Your task to perform on an android device: Open the Play Movies app and select the watchlist tab. Image 0: 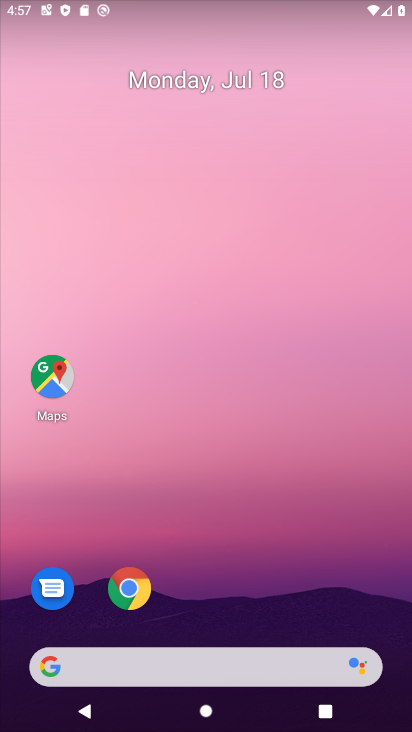
Step 0: drag from (277, 621) to (195, 163)
Your task to perform on an android device: Open the Play Movies app and select the watchlist tab. Image 1: 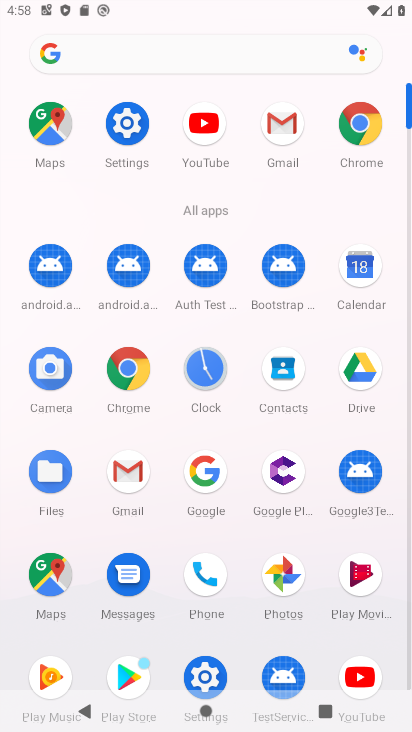
Step 1: click (355, 589)
Your task to perform on an android device: Open the Play Movies app and select the watchlist tab. Image 2: 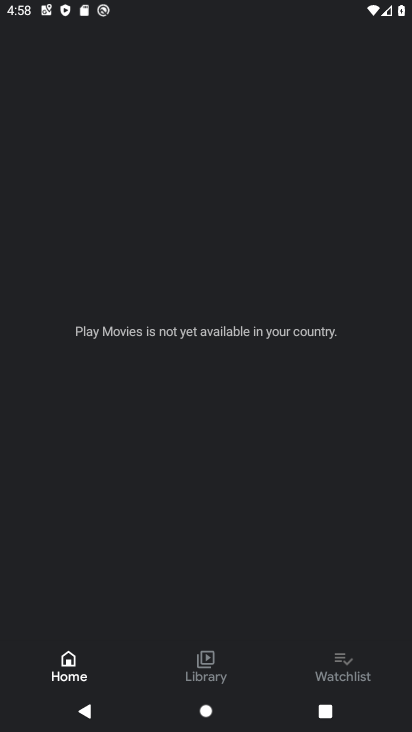
Step 2: click (356, 652)
Your task to perform on an android device: Open the Play Movies app and select the watchlist tab. Image 3: 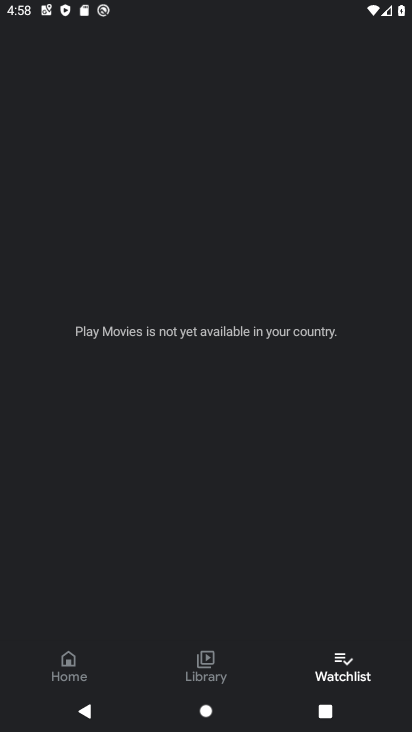
Step 3: task complete